Your task to perform on an android device: Open battery settings Image 0: 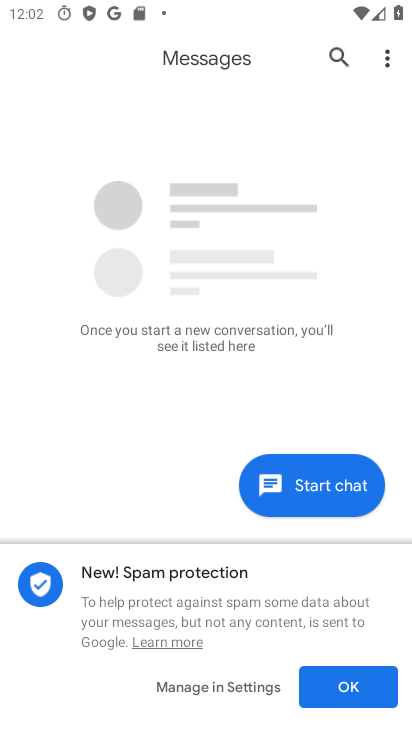
Step 0: press home button
Your task to perform on an android device: Open battery settings Image 1: 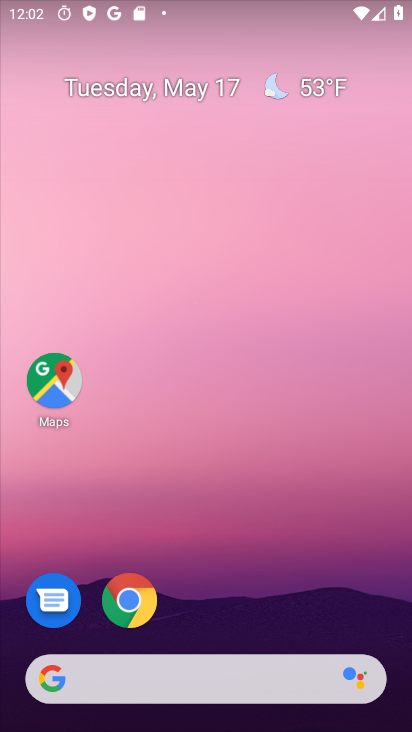
Step 1: drag from (217, 611) to (294, 86)
Your task to perform on an android device: Open battery settings Image 2: 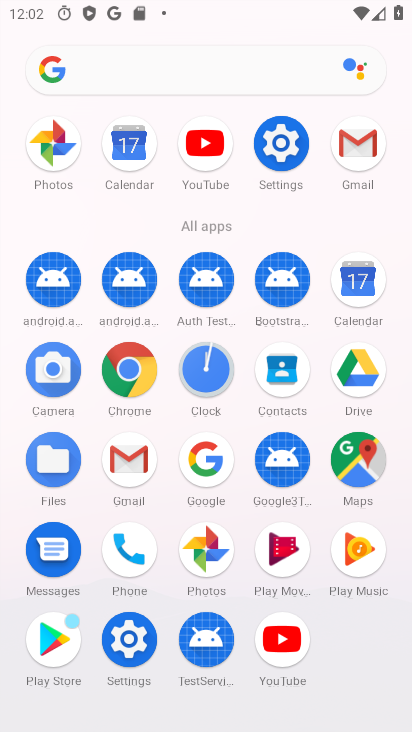
Step 2: click (127, 639)
Your task to perform on an android device: Open battery settings Image 3: 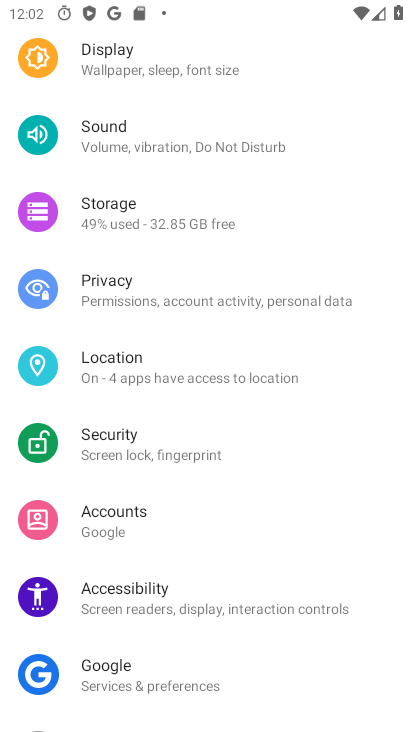
Step 3: drag from (200, 281) to (221, 469)
Your task to perform on an android device: Open battery settings Image 4: 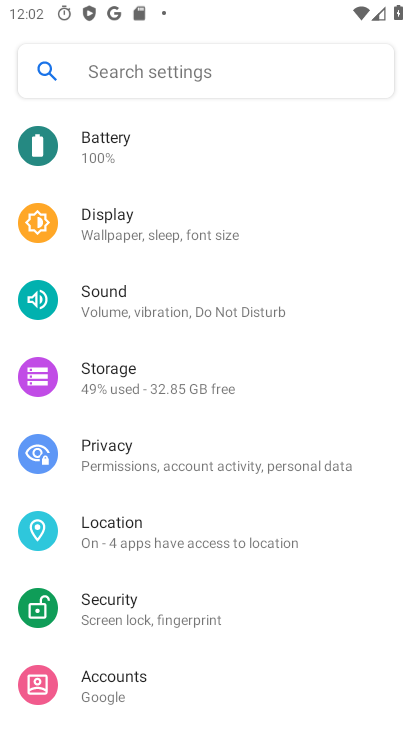
Step 4: click (145, 154)
Your task to perform on an android device: Open battery settings Image 5: 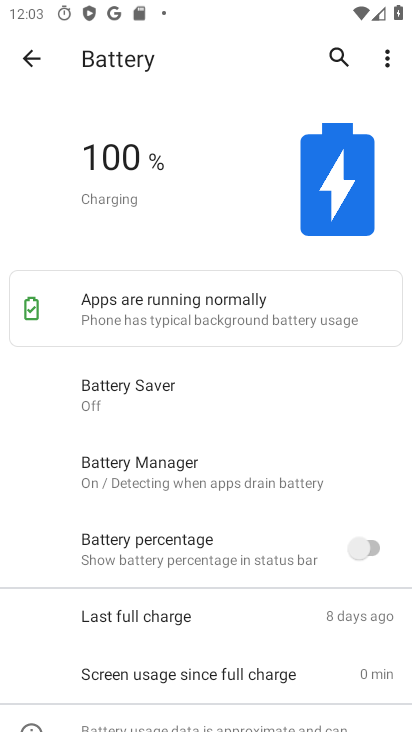
Step 5: task complete